Your task to perform on an android device: Open location settings Image 0: 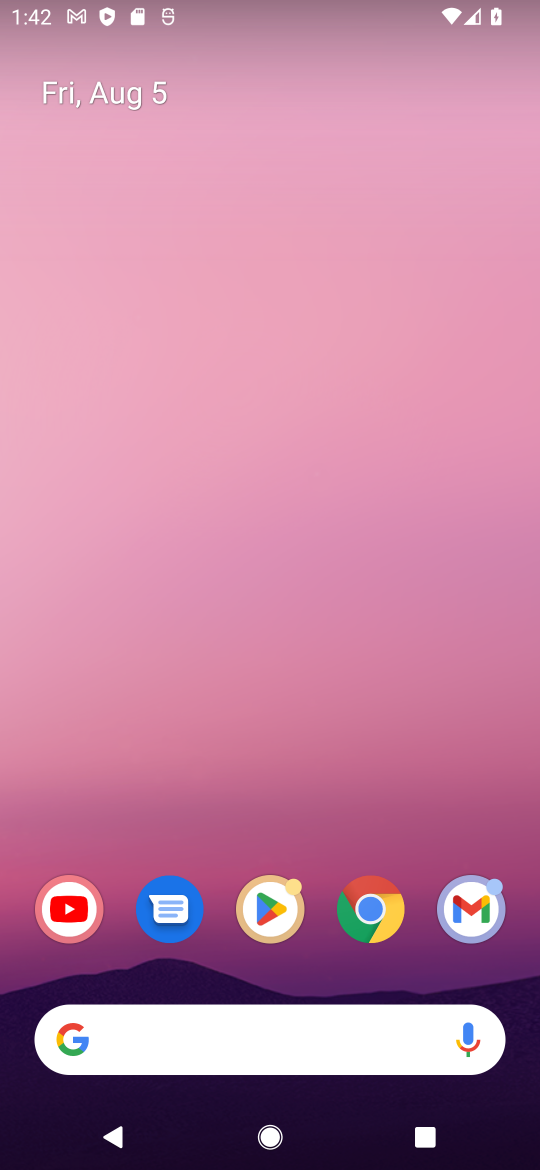
Step 0: drag from (315, 977) to (230, 45)
Your task to perform on an android device: Open location settings Image 1: 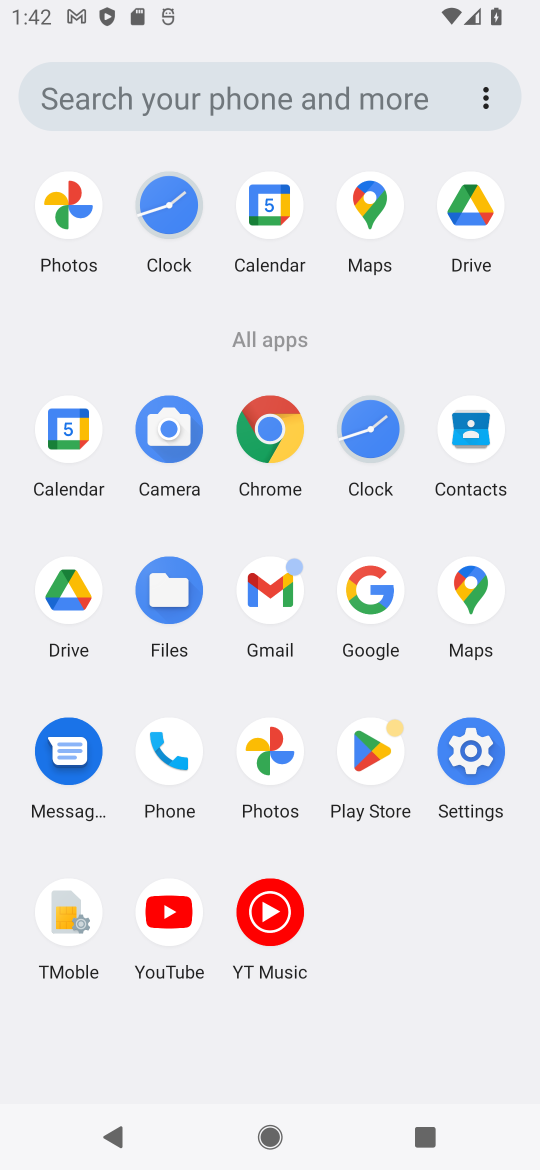
Step 1: click (484, 746)
Your task to perform on an android device: Open location settings Image 2: 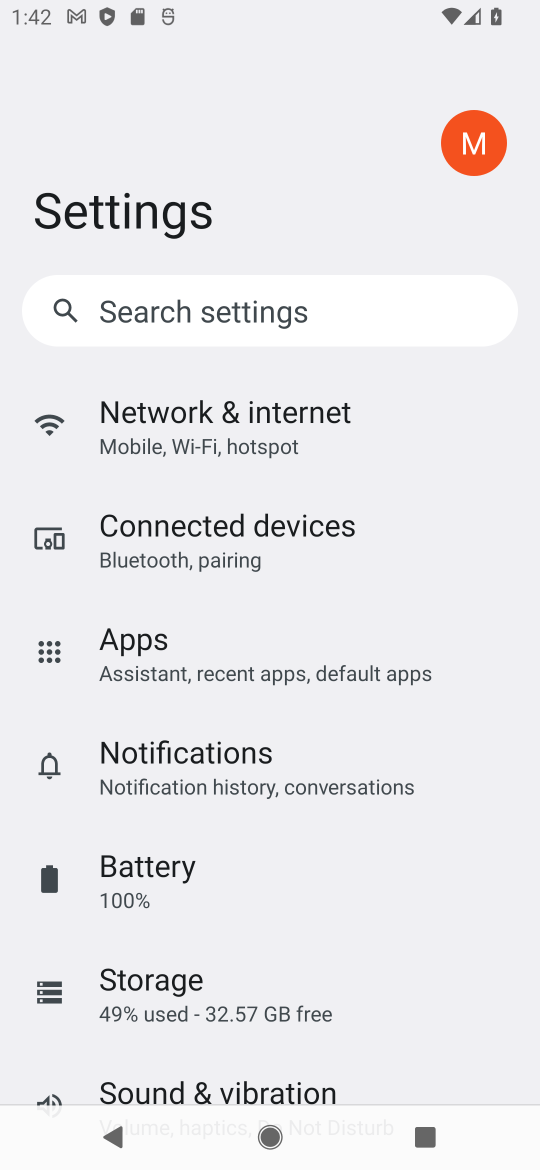
Step 2: drag from (240, 1027) to (235, 560)
Your task to perform on an android device: Open location settings Image 3: 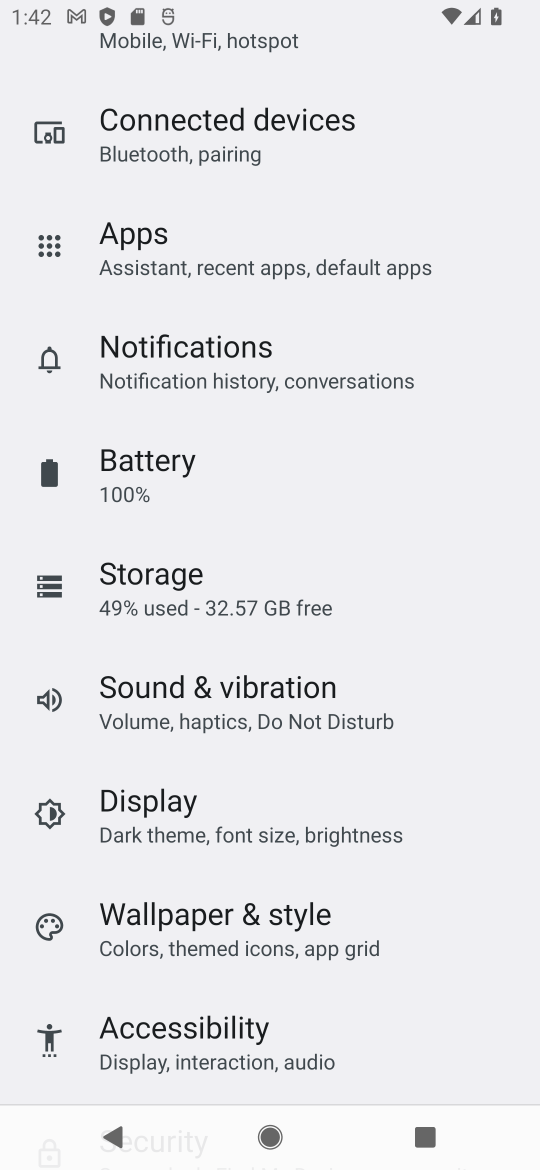
Step 3: drag from (245, 1011) to (294, 502)
Your task to perform on an android device: Open location settings Image 4: 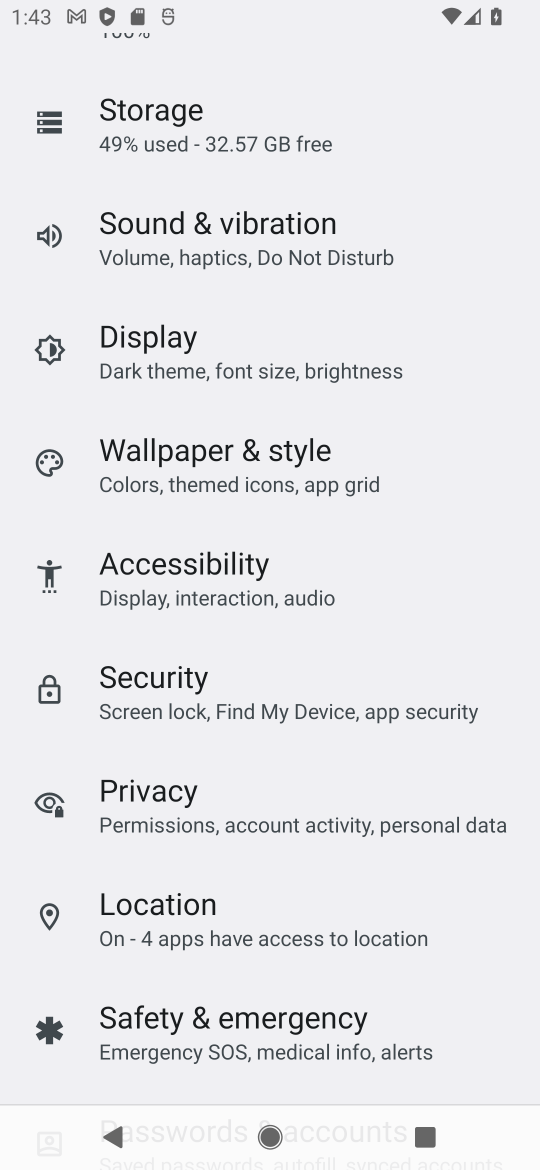
Step 4: click (304, 894)
Your task to perform on an android device: Open location settings Image 5: 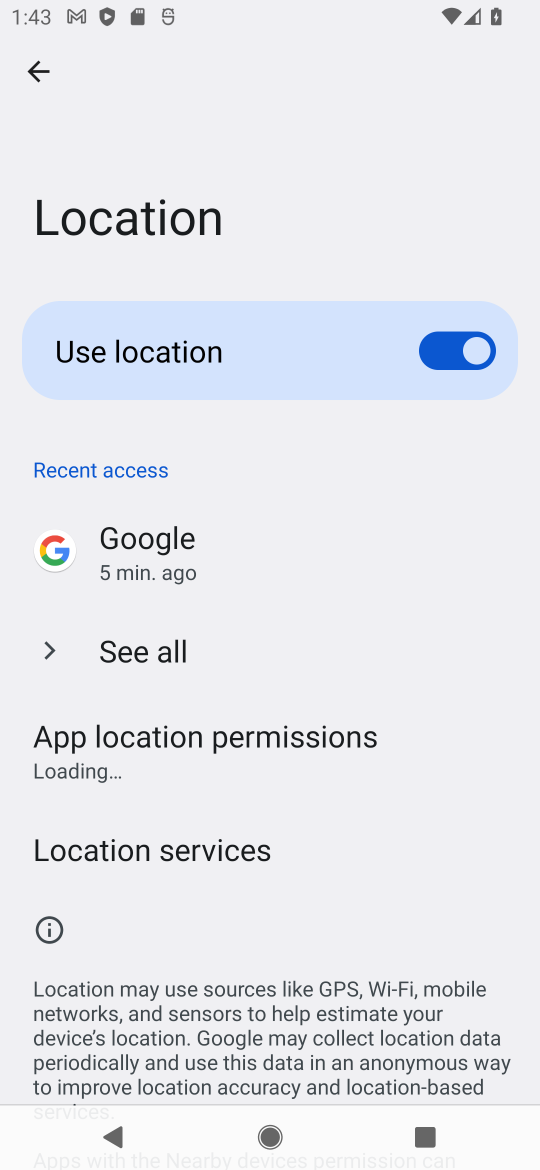
Step 5: task complete